Your task to perform on an android device: clear all cookies in the chrome app Image 0: 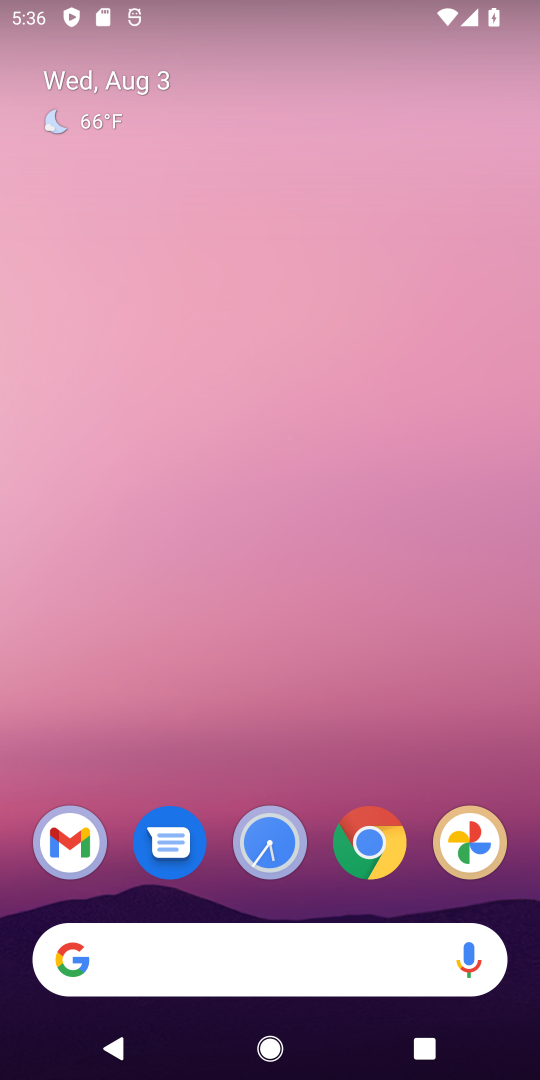
Step 0: click (409, 865)
Your task to perform on an android device: clear all cookies in the chrome app Image 1: 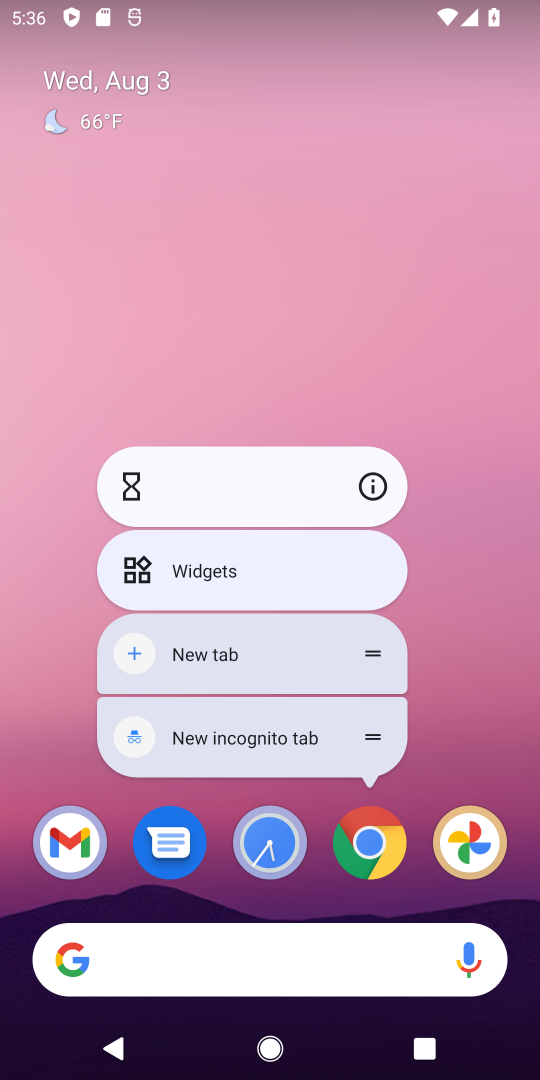
Step 1: click (371, 843)
Your task to perform on an android device: clear all cookies in the chrome app Image 2: 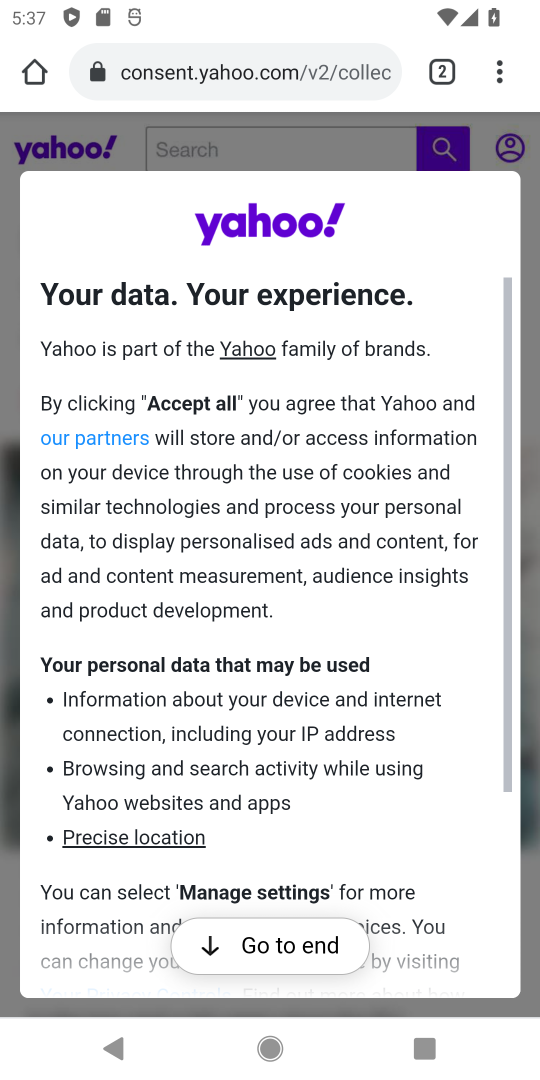
Step 2: click (495, 64)
Your task to perform on an android device: clear all cookies in the chrome app Image 3: 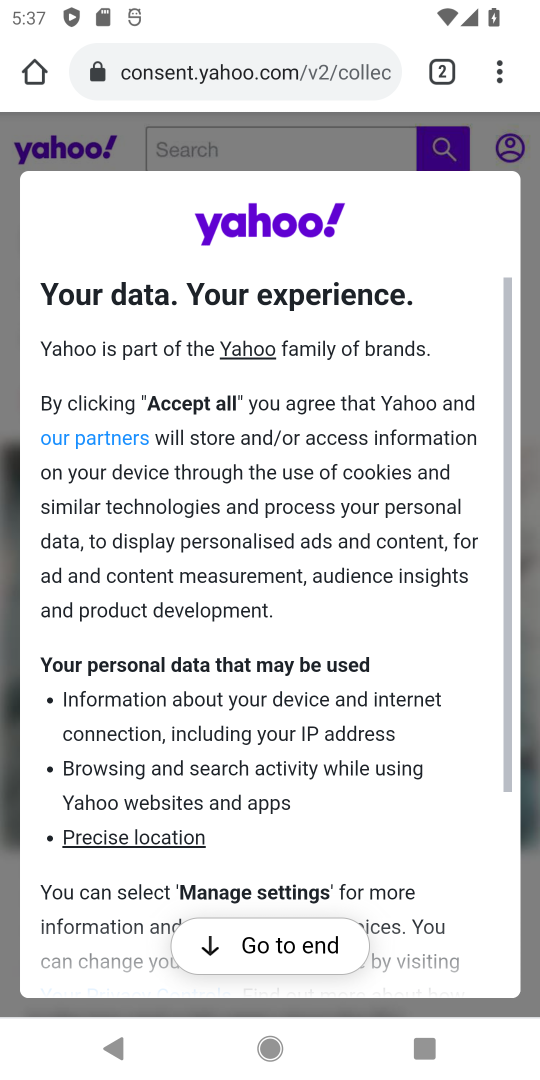
Step 3: click (500, 66)
Your task to perform on an android device: clear all cookies in the chrome app Image 4: 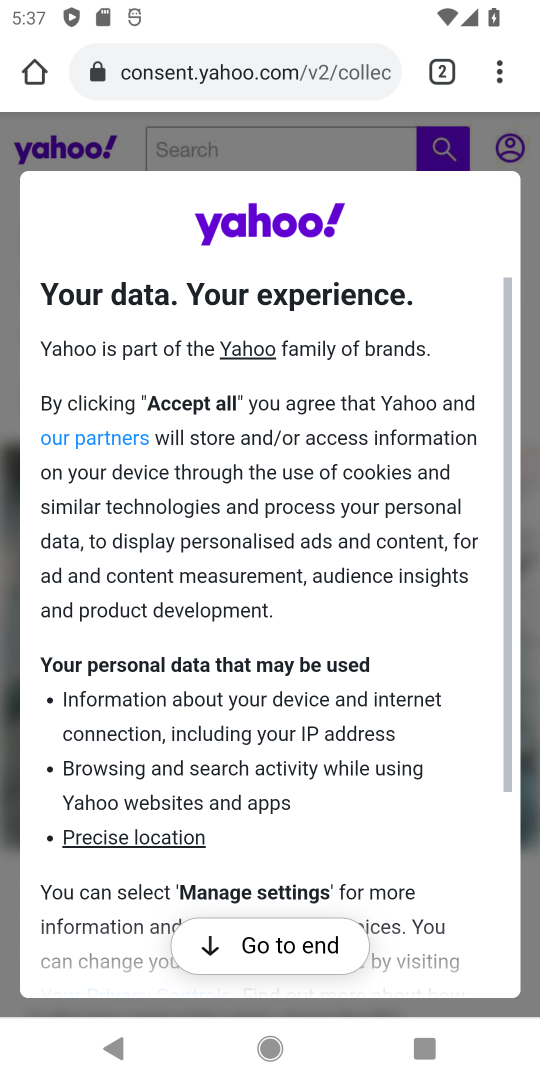
Step 4: click (492, 64)
Your task to perform on an android device: clear all cookies in the chrome app Image 5: 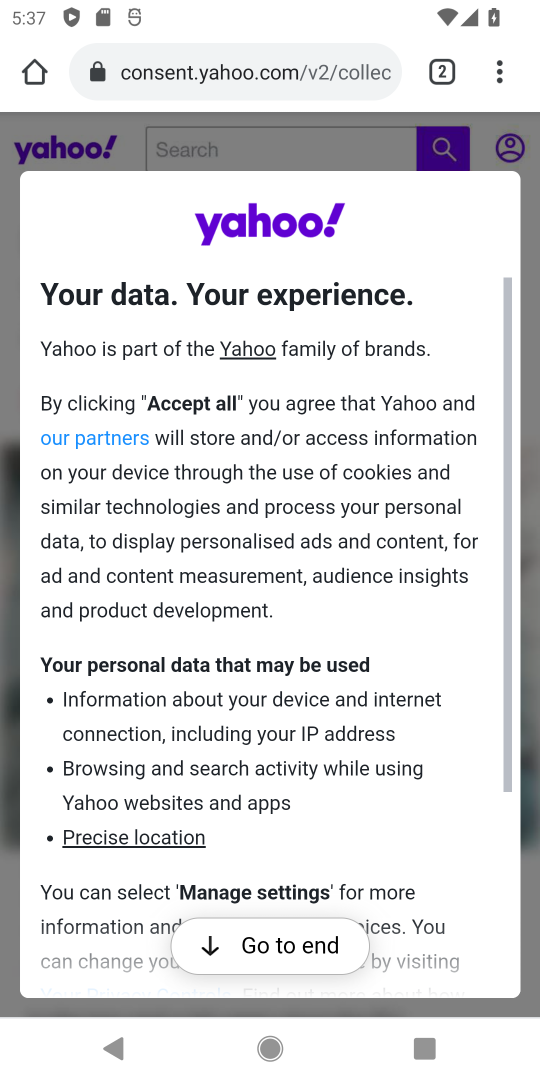
Step 5: click (490, 73)
Your task to perform on an android device: clear all cookies in the chrome app Image 6: 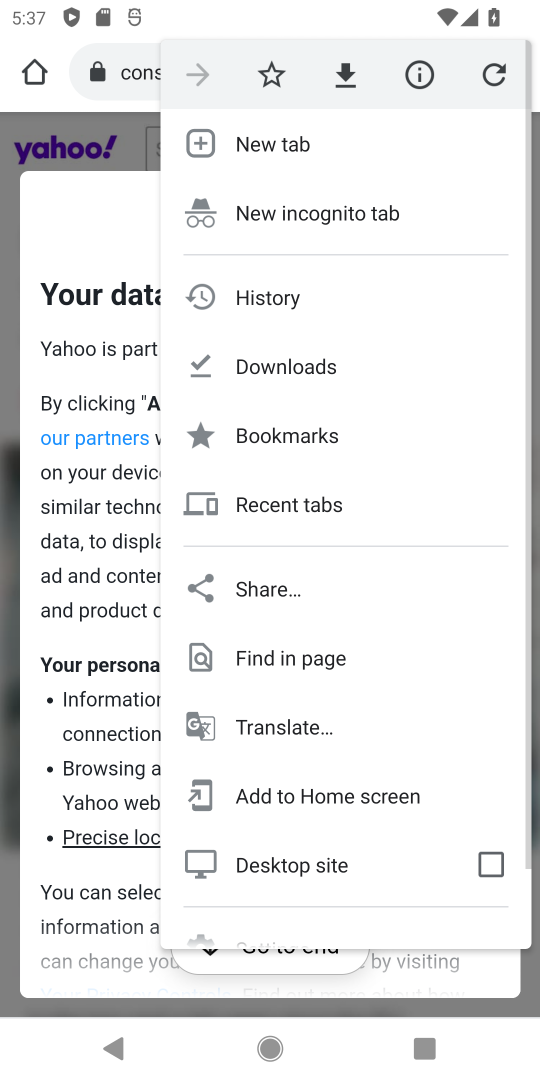
Step 6: click (240, 301)
Your task to perform on an android device: clear all cookies in the chrome app Image 7: 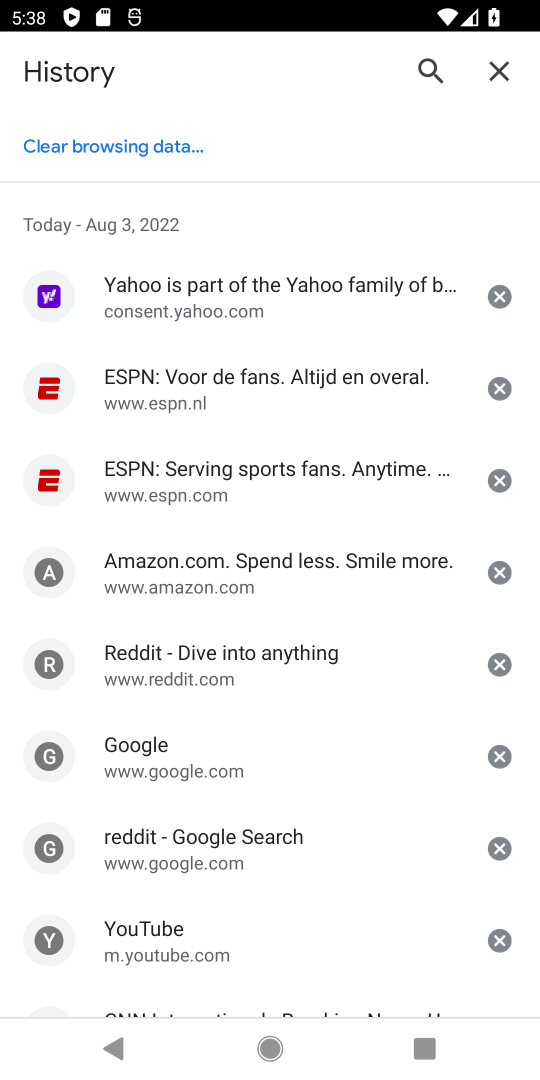
Step 7: click (125, 139)
Your task to perform on an android device: clear all cookies in the chrome app Image 8: 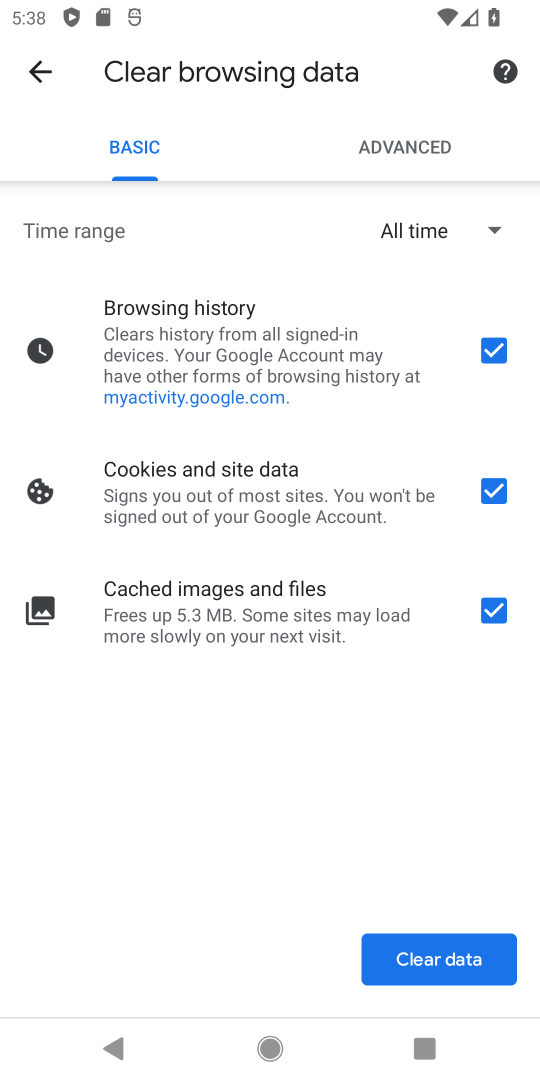
Step 8: click (459, 945)
Your task to perform on an android device: clear all cookies in the chrome app Image 9: 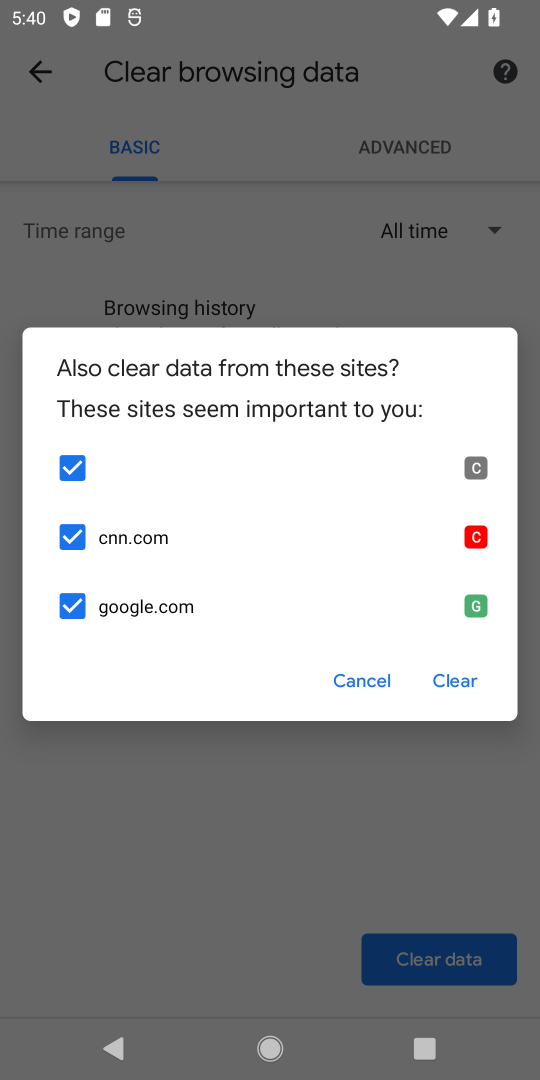
Step 9: click (465, 683)
Your task to perform on an android device: clear all cookies in the chrome app Image 10: 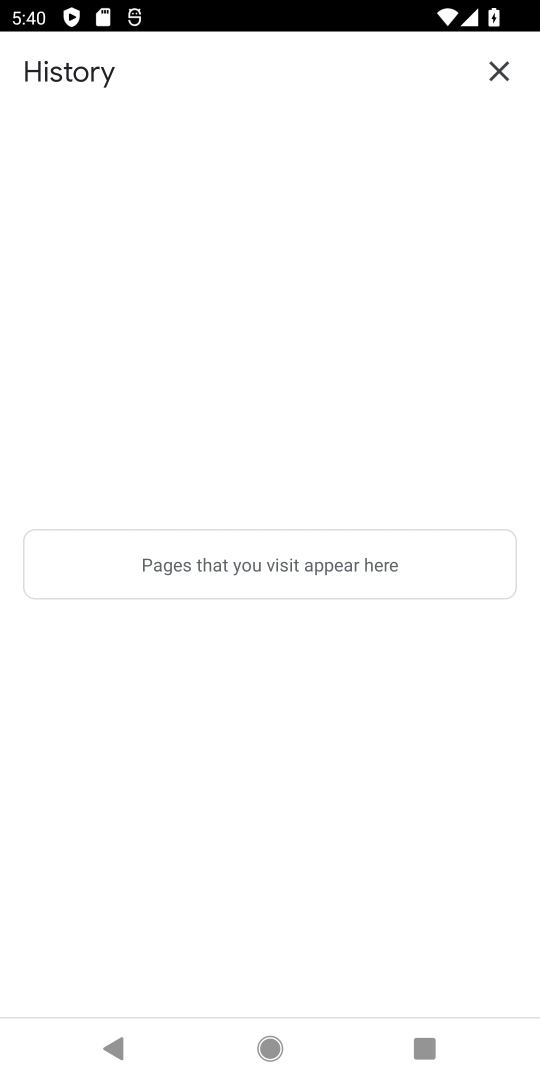
Step 10: task complete